Your task to perform on an android device: allow cookies in the chrome app Image 0: 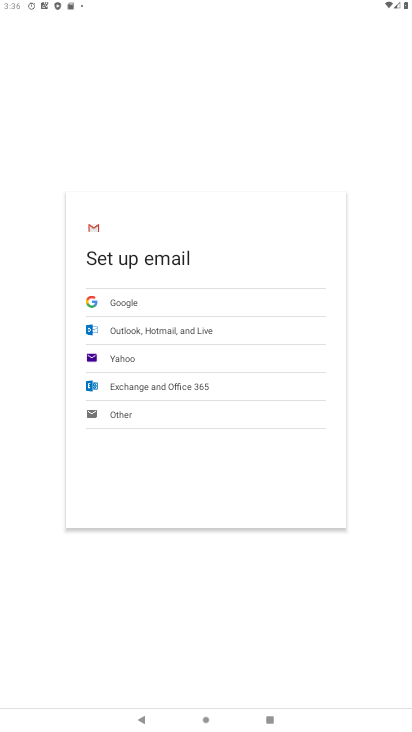
Step 0: press home button
Your task to perform on an android device: allow cookies in the chrome app Image 1: 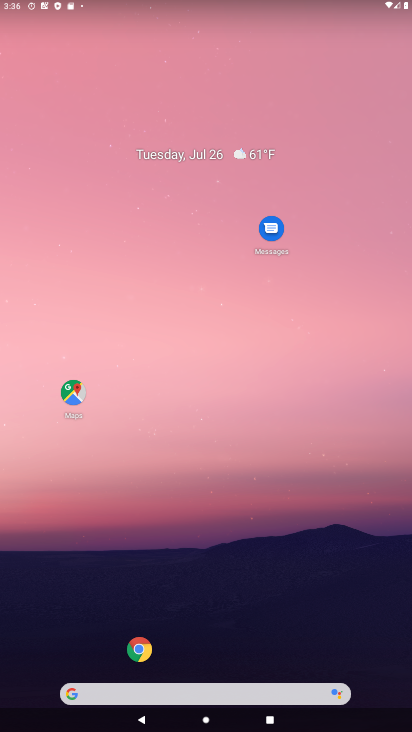
Step 1: click (146, 643)
Your task to perform on an android device: allow cookies in the chrome app Image 2: 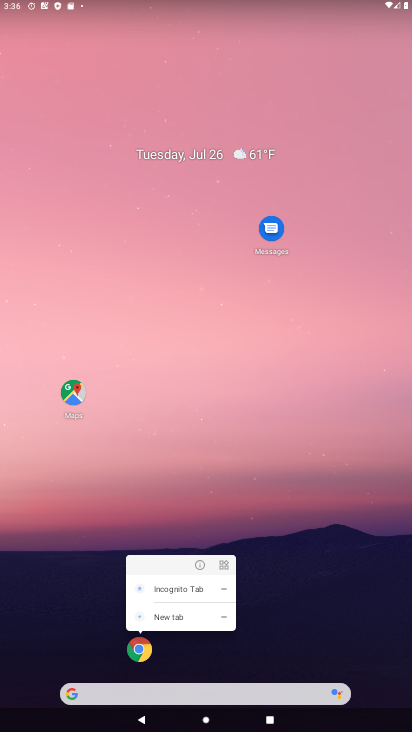
Step 2: click (141, 657)
Your task to perform on an android device: allow cookies in the chrome app Image 3: 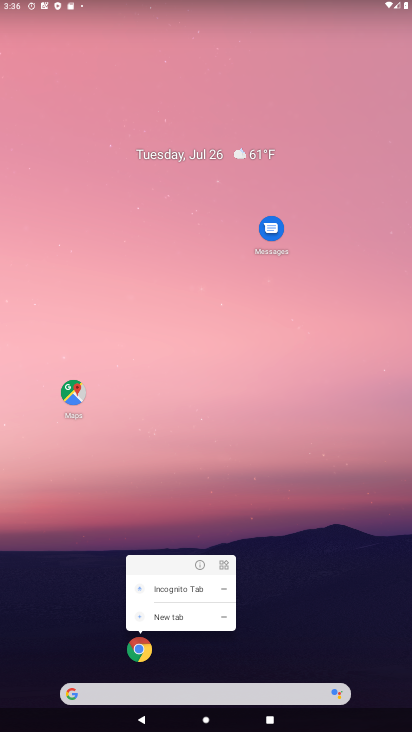
Step 3: click (134, 648)
Your task to perform on an android device: allow cookies in the chrome app Image 4: 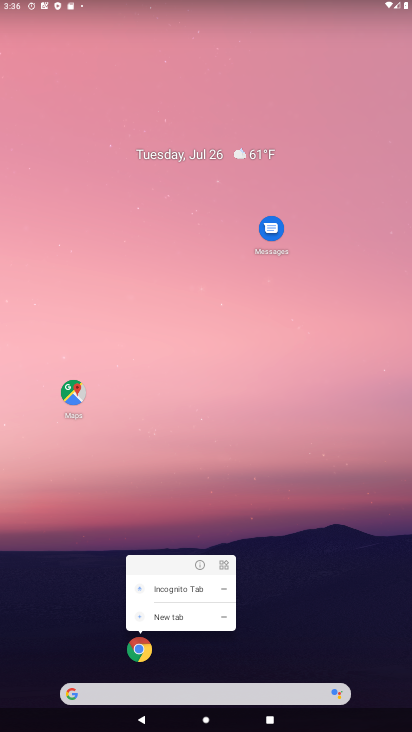
Step 4: click (138, 649)
Your task to perform on an android device: allow cookies in the chrome app Image 5: 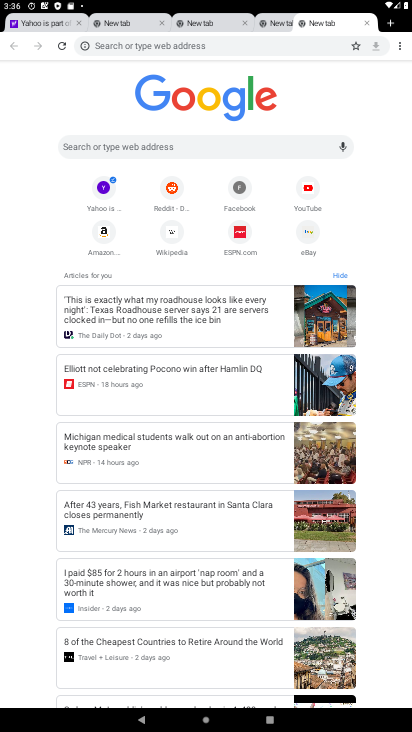
Step 5: click (401, 43)
Your task to perform on an android device: allow cookies in the chrome app Image 6: 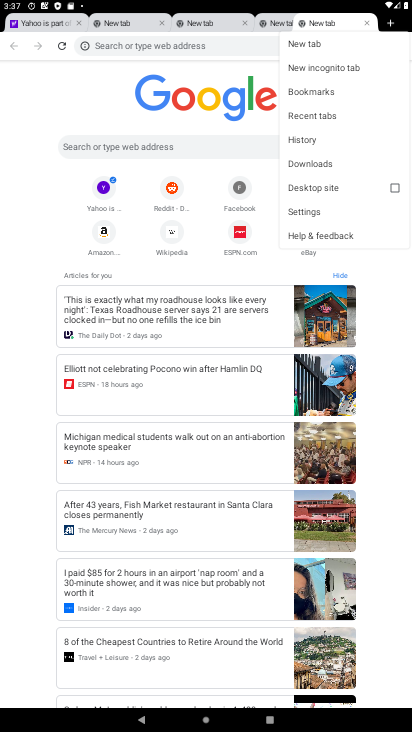
Step 6: click (314, 214)
Your task to perform on an android device: allow cookies in the chrome app Image 7: 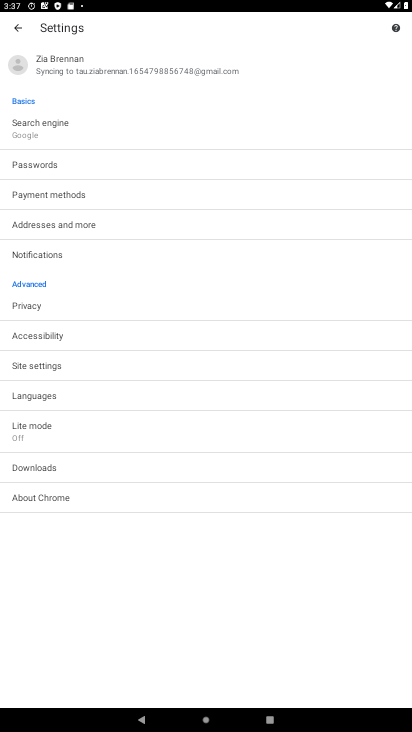
Step 7: click (41, 364)
Your task to perform on an android device: allow cookies in the chrome app Image 8: 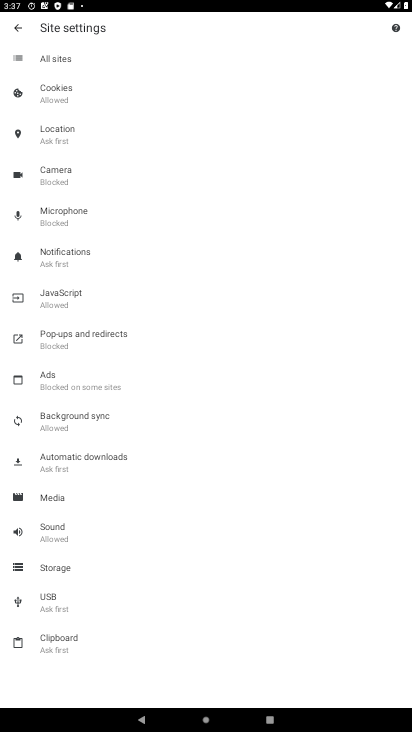
Step 8: click (77, 99)
Your task to perform on an android device: allow cookies in the chrome app Image 9: 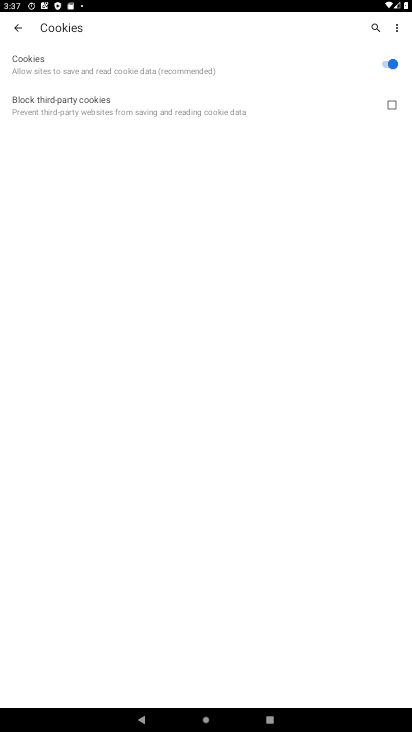
Step 9: task complete